Your task to perform on an android device: toggle priority inbox in the gmail app Image 0: 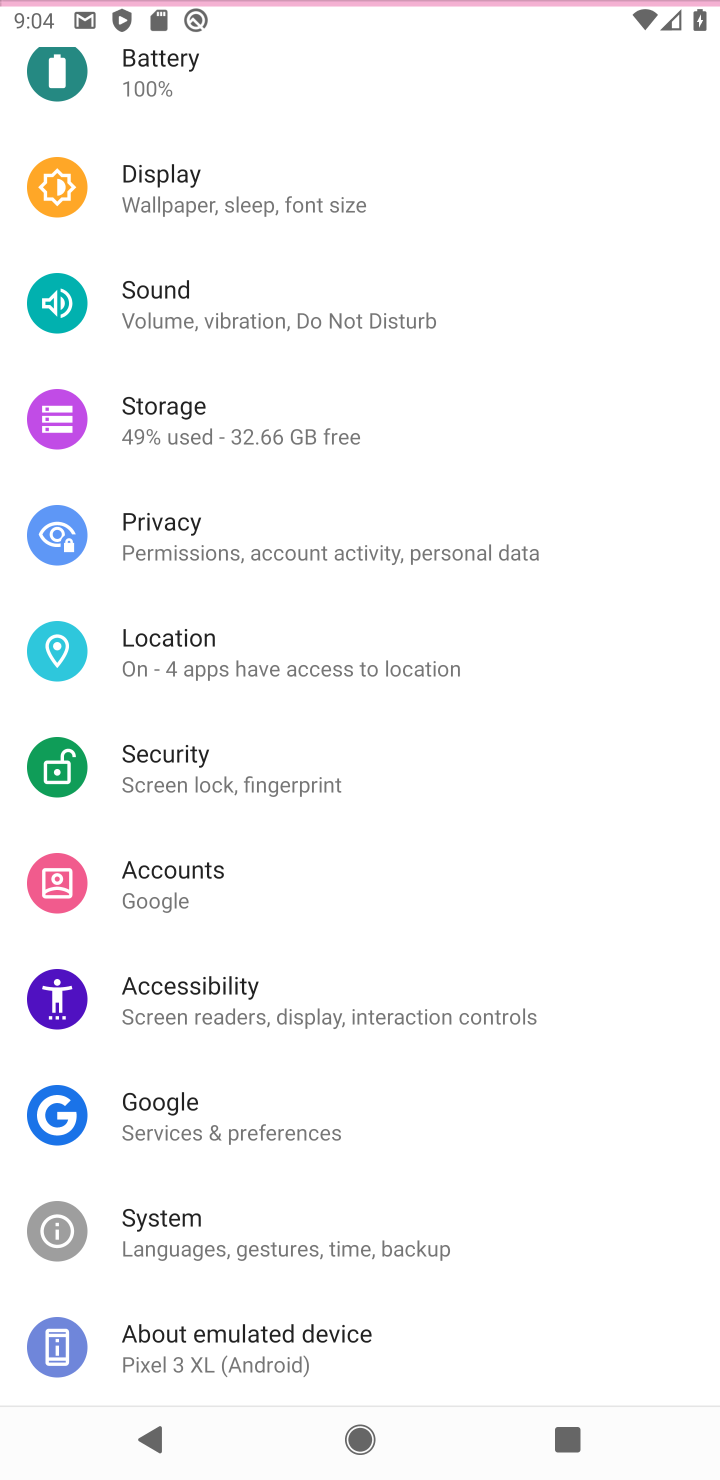
Step 0: press back button
Your task to perform on an android device: toggle priority inbox in the gmail app Image 1: 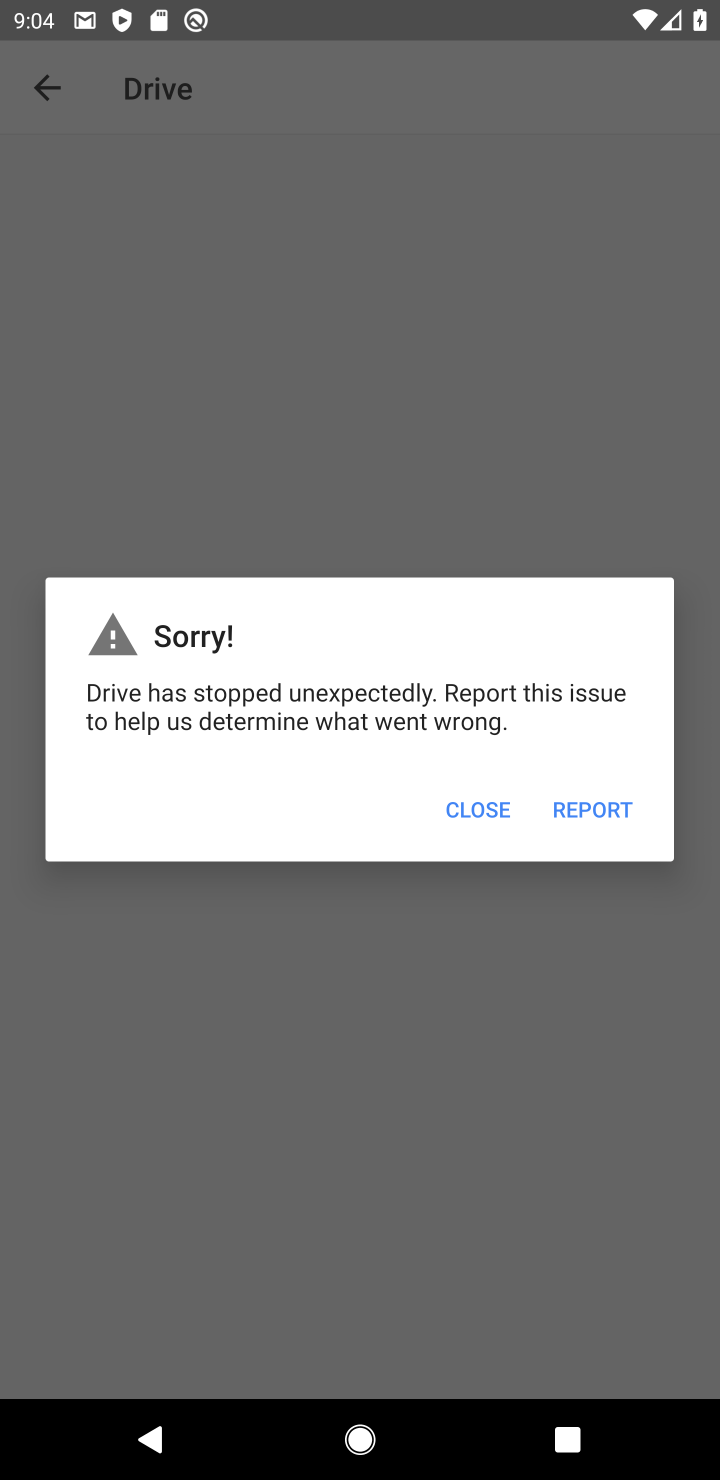
Step 1: press back button
Your task to perform on an android device: toggle priority inbox in the gmail app Image 2: 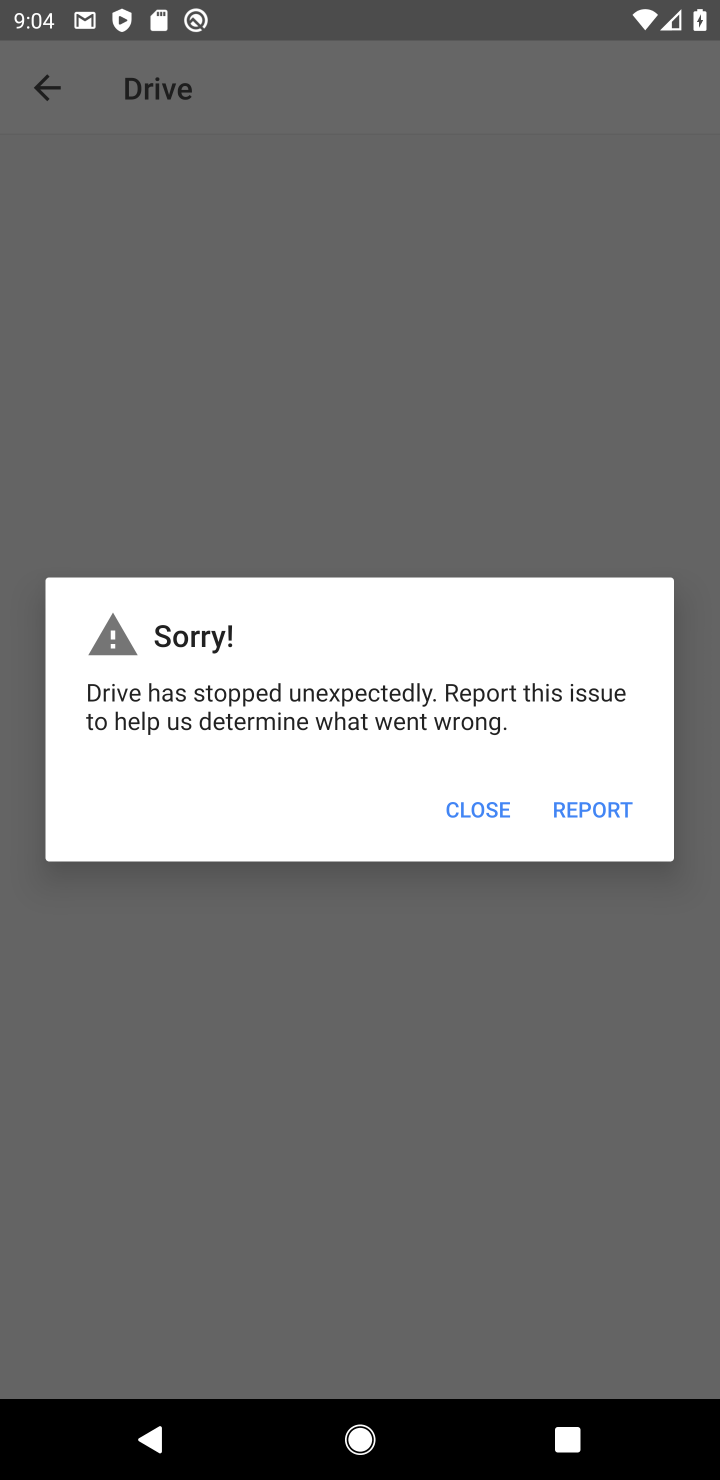
Step 2: press home button
Your task to perform on an android device: toggle priority inbox in the gmail app Image 3: 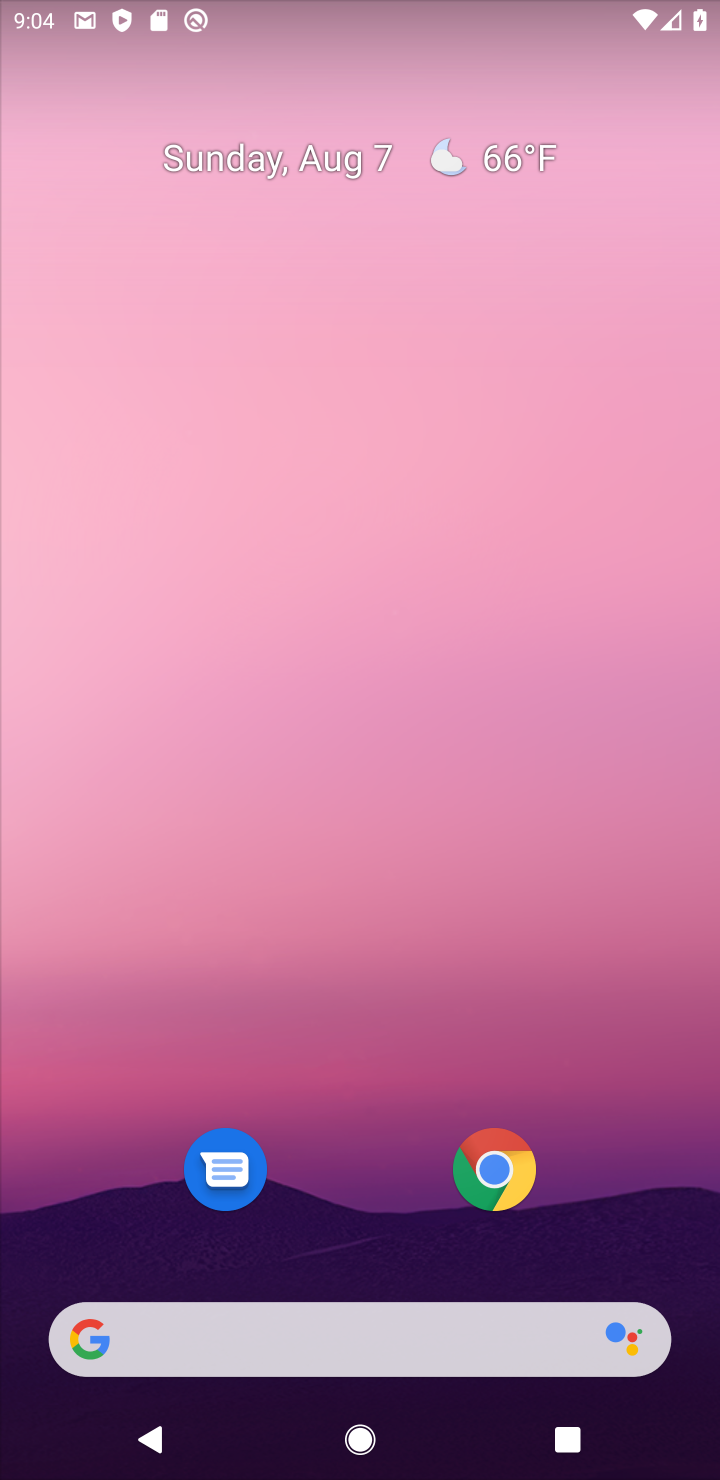
Step 3: drag from (397, 1344) to (267, 97)
Your task to perform on an android device: toggle priority inbox in the gmail app Image 4: 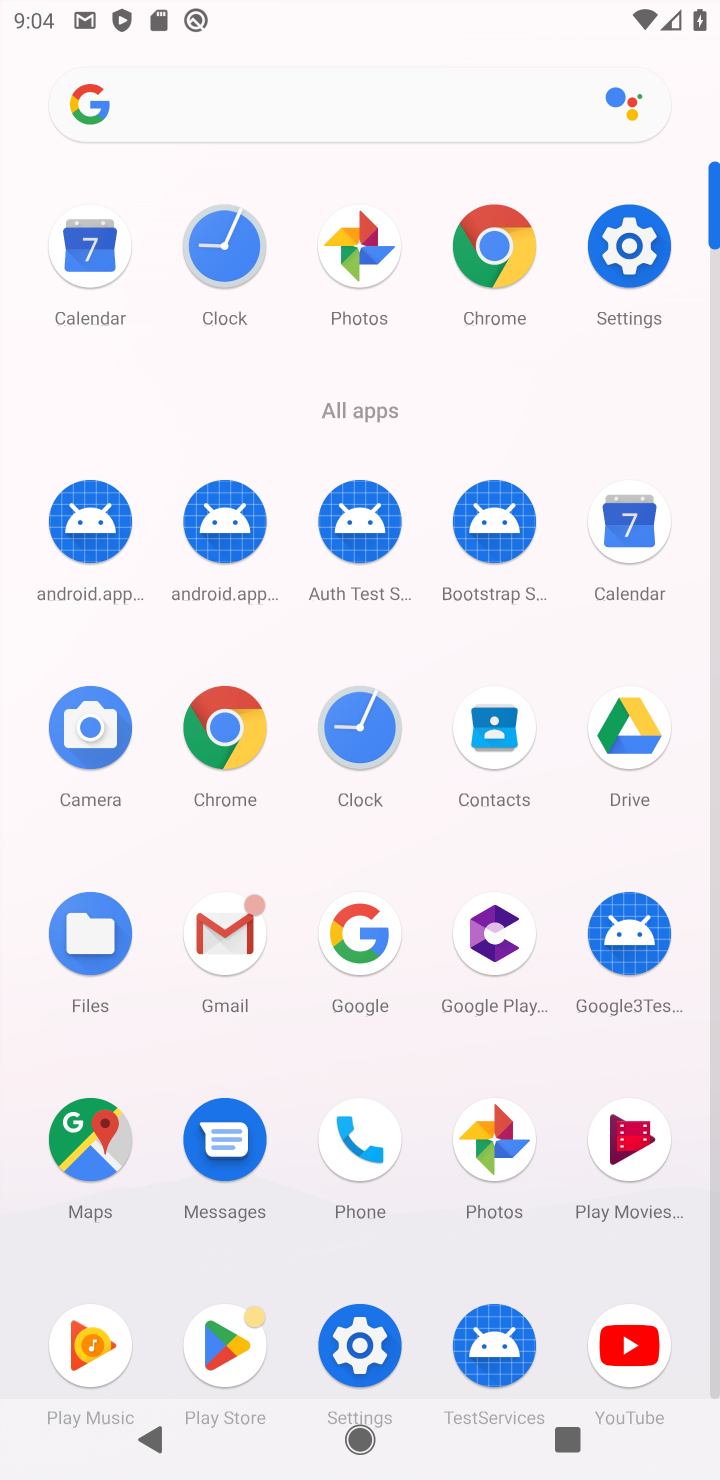
Step 4: click (245, 935)
Your task to perform on an android device: toggle priority inbox in the gmail app Image 5: 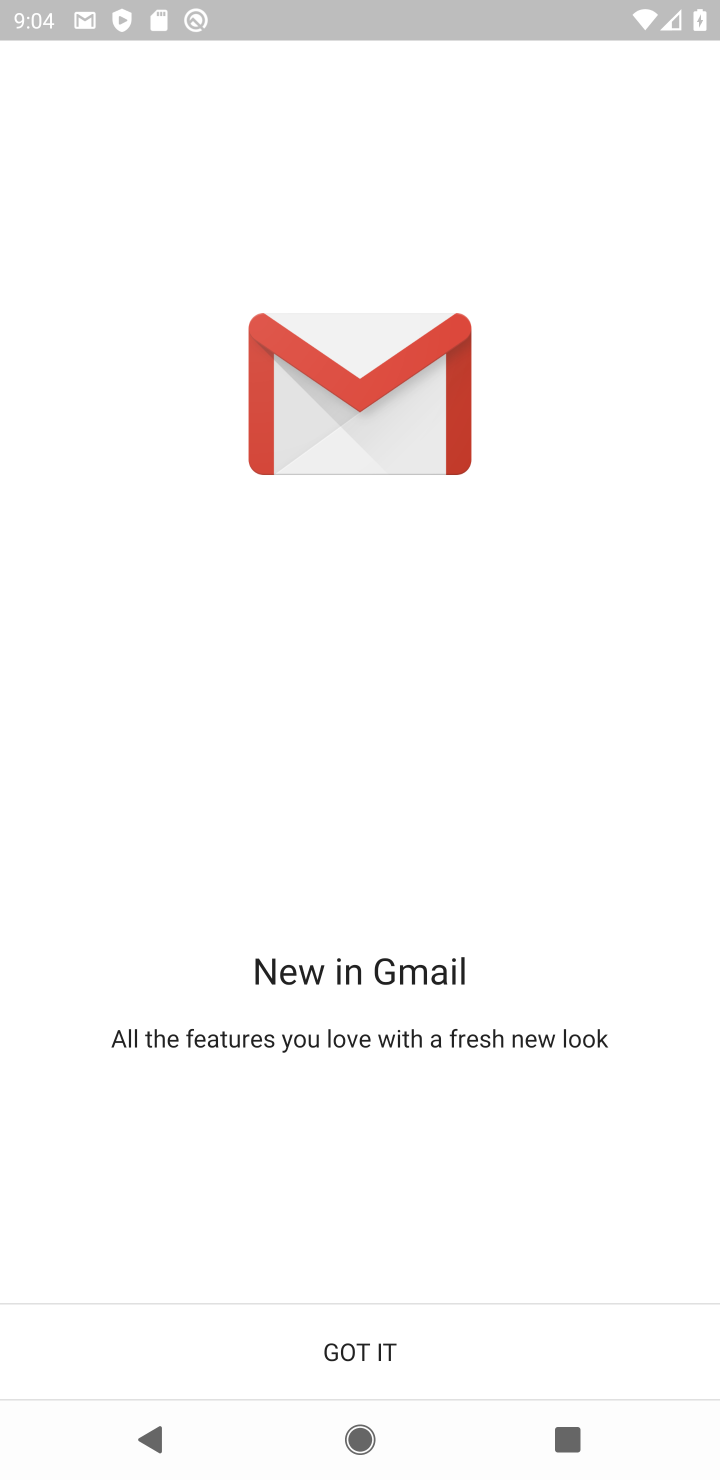
Step 5: click (483, 1321)
Your task to perform on an android device: toggle priority inbox in the gmail app Image 6: 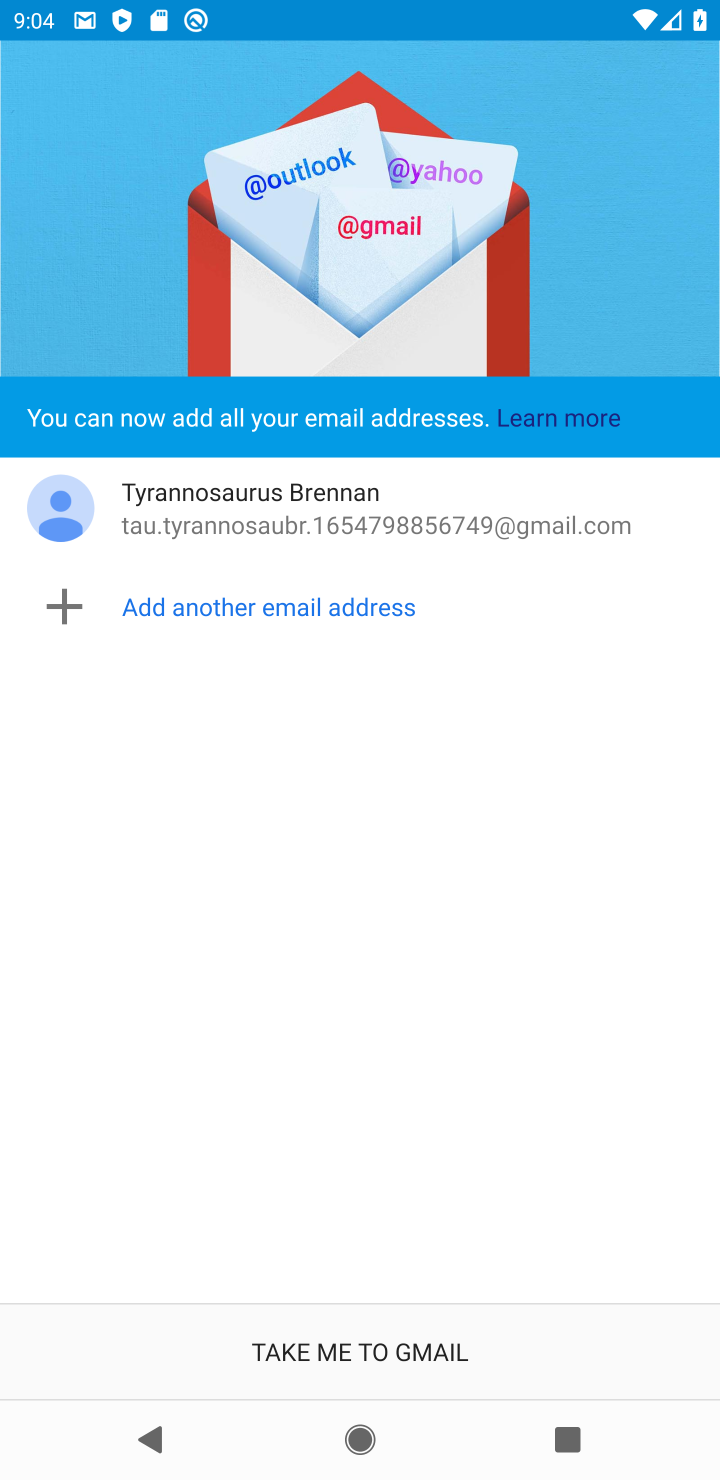
Step 6: click (492, 1343)
Your task to perform on an android device: toggle priority inbox in the gmail app Image 7: 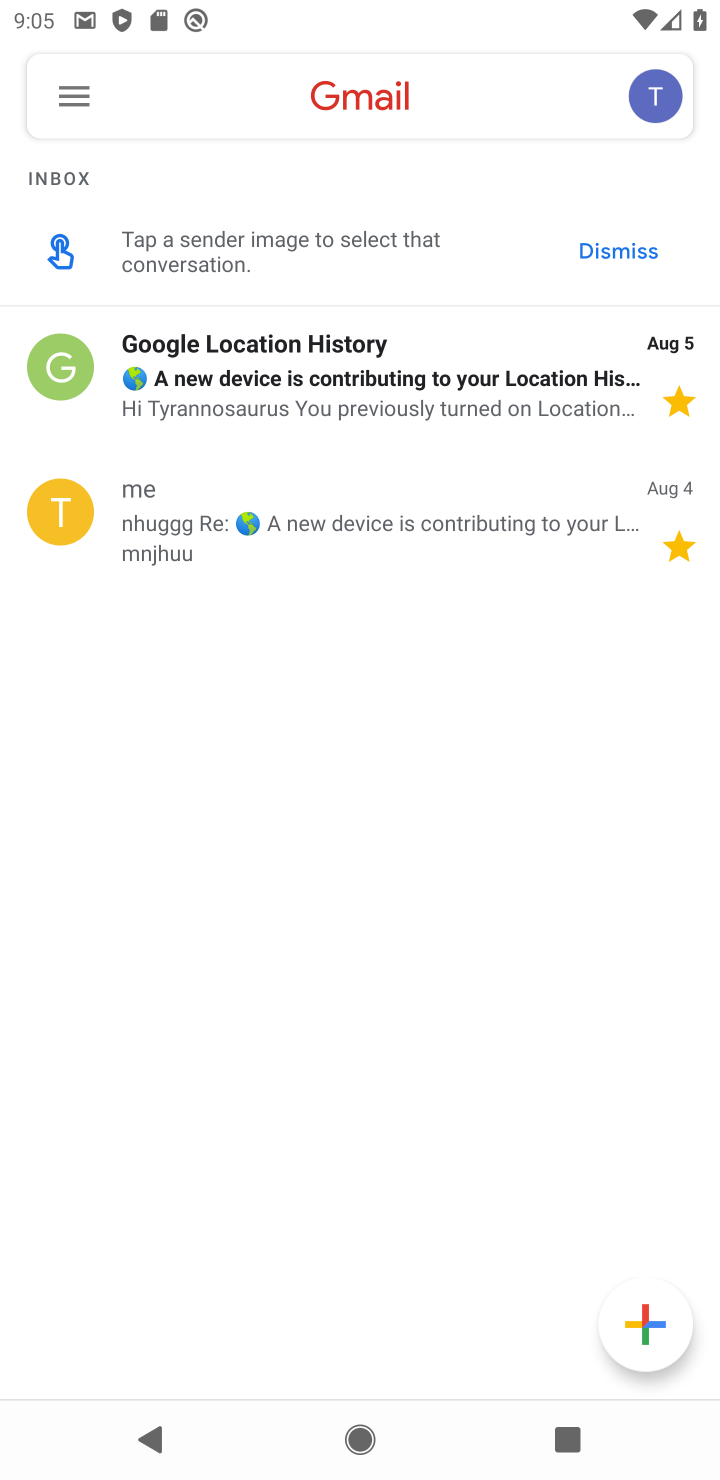
Step 7: drag from (66, 91) to (160, 1061)
Your task to perform on an android device: toggle priority inbox in the gmail app Image 8: 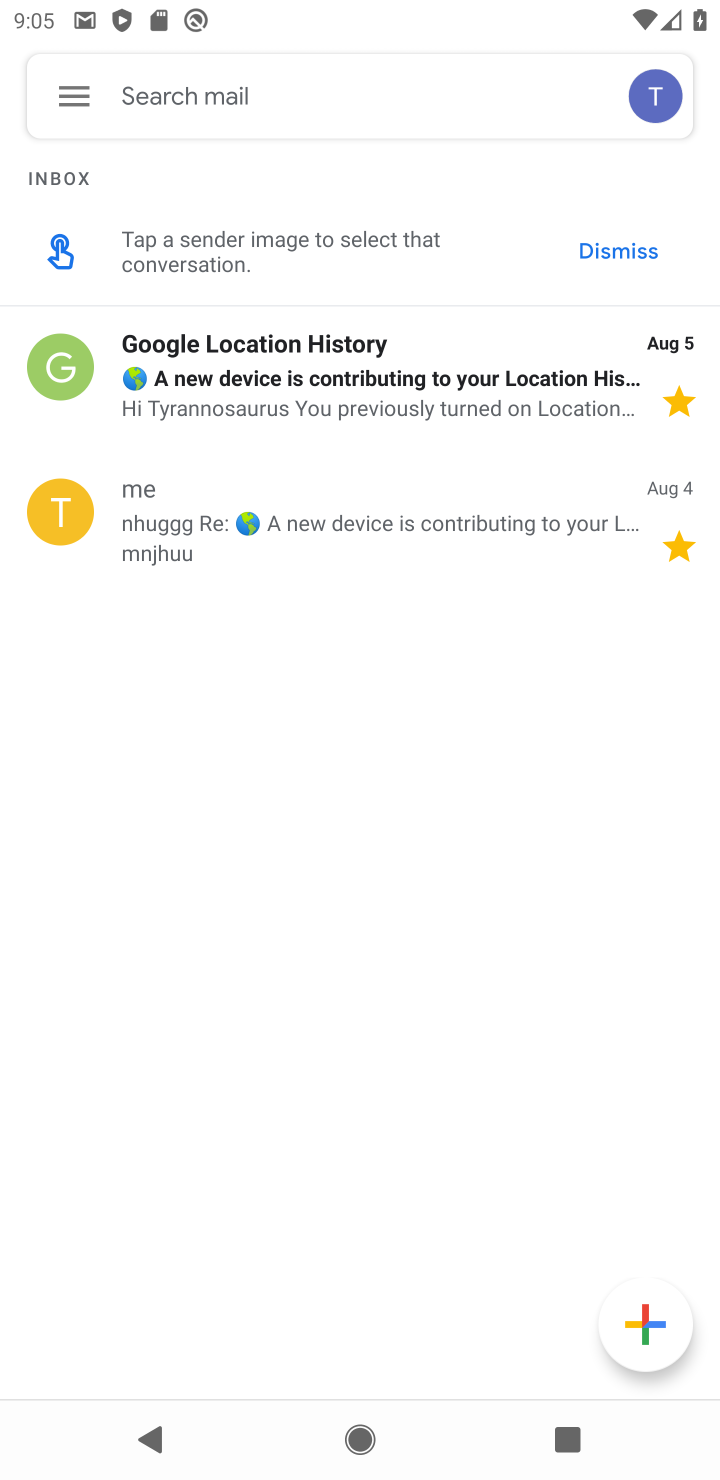
Step 8: click (70, 67)
Your task to perform on an android device: toggle priority inbox in the gmail app Image 9: 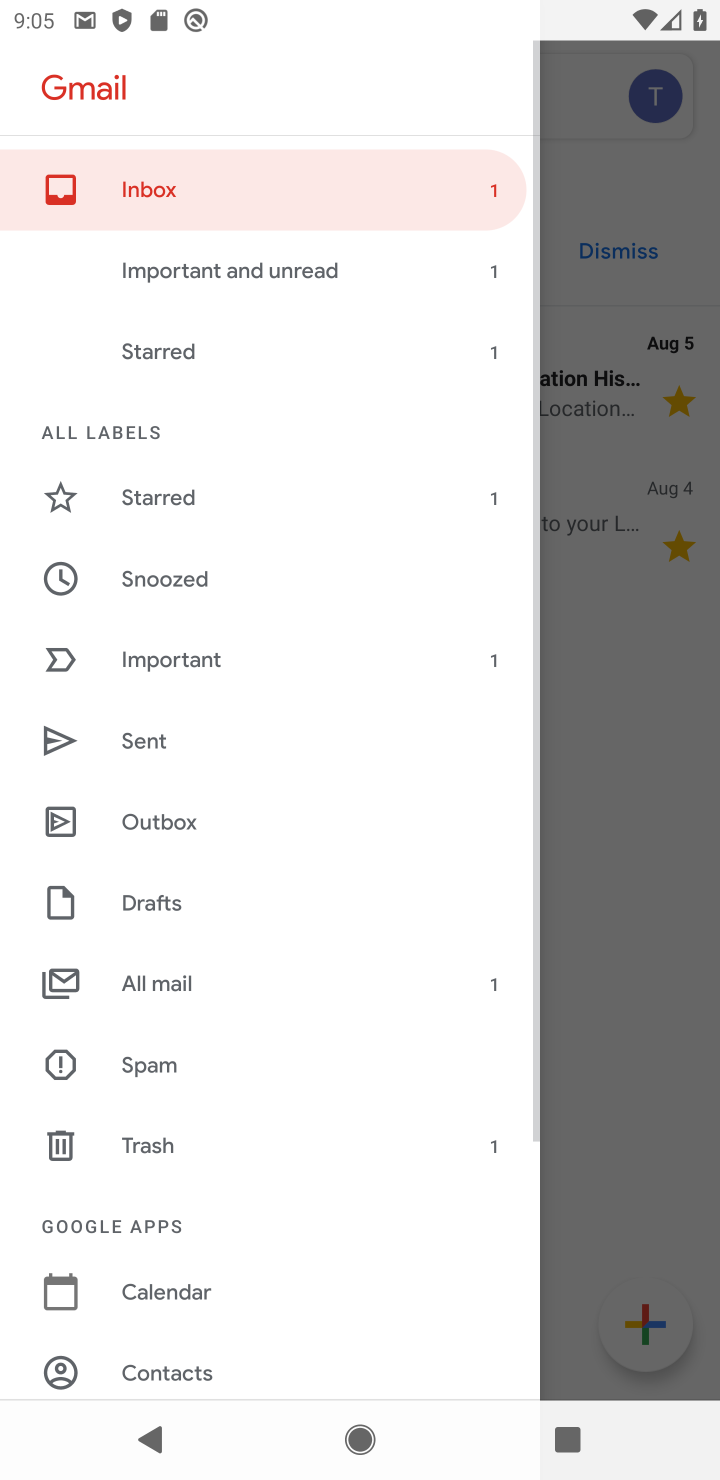
Step 9: drag from (293, 1116) to (303, 69)
Your task to perform on an android device: toggle priority inbox in the gmail app Image 10: 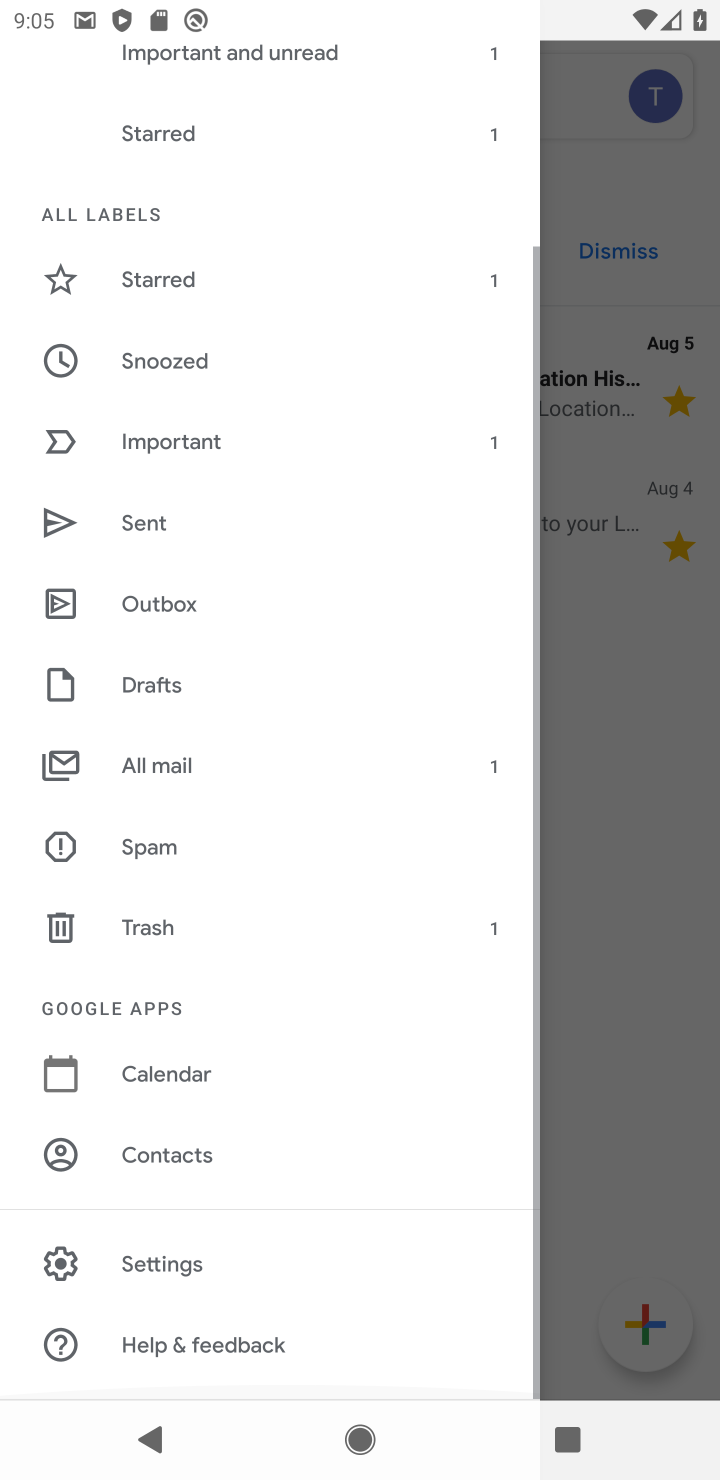
Step 10: click (175, 1271)
Your task to perform on an android device: toggle priority inbox in the gmail app Image 11: 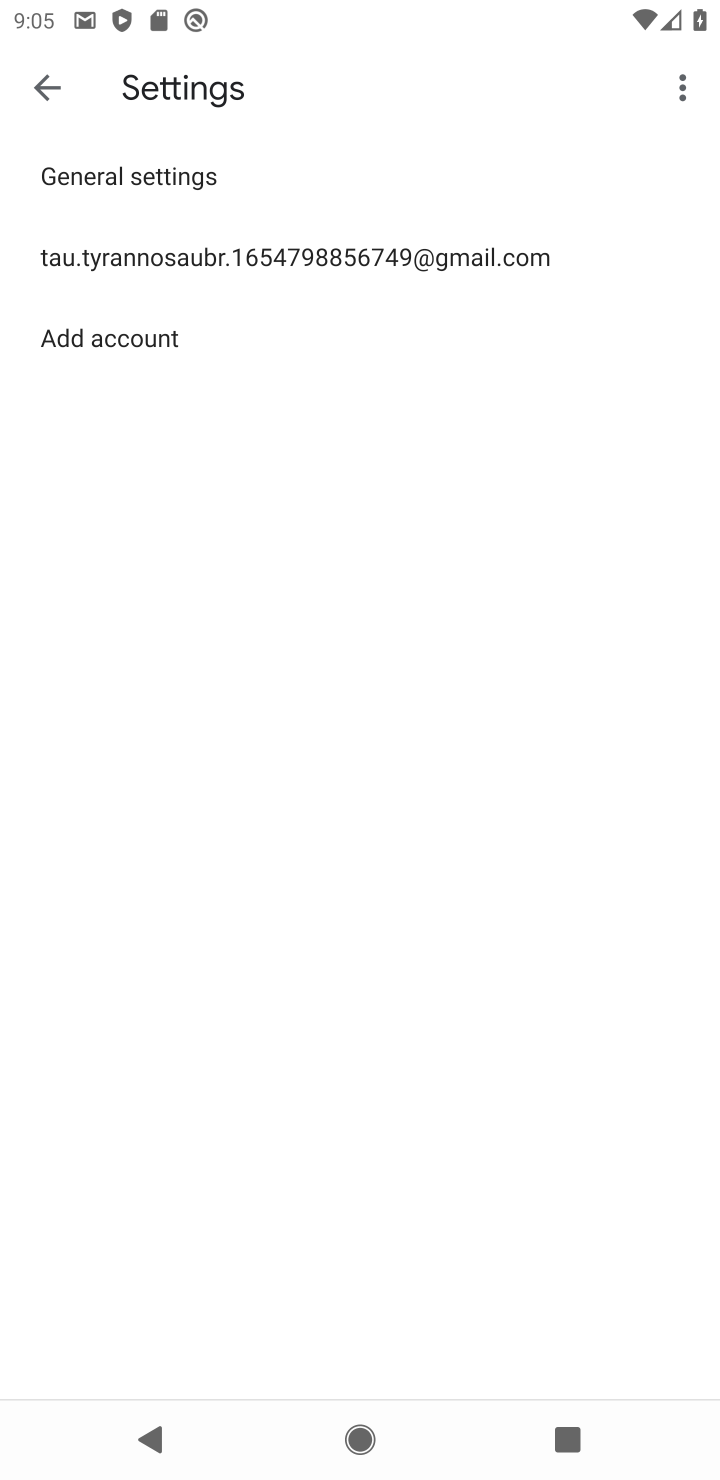
Step 11: click (249, 234)
Your task to perform on an android device: toggle priority inbox in the gmail app Image 12: 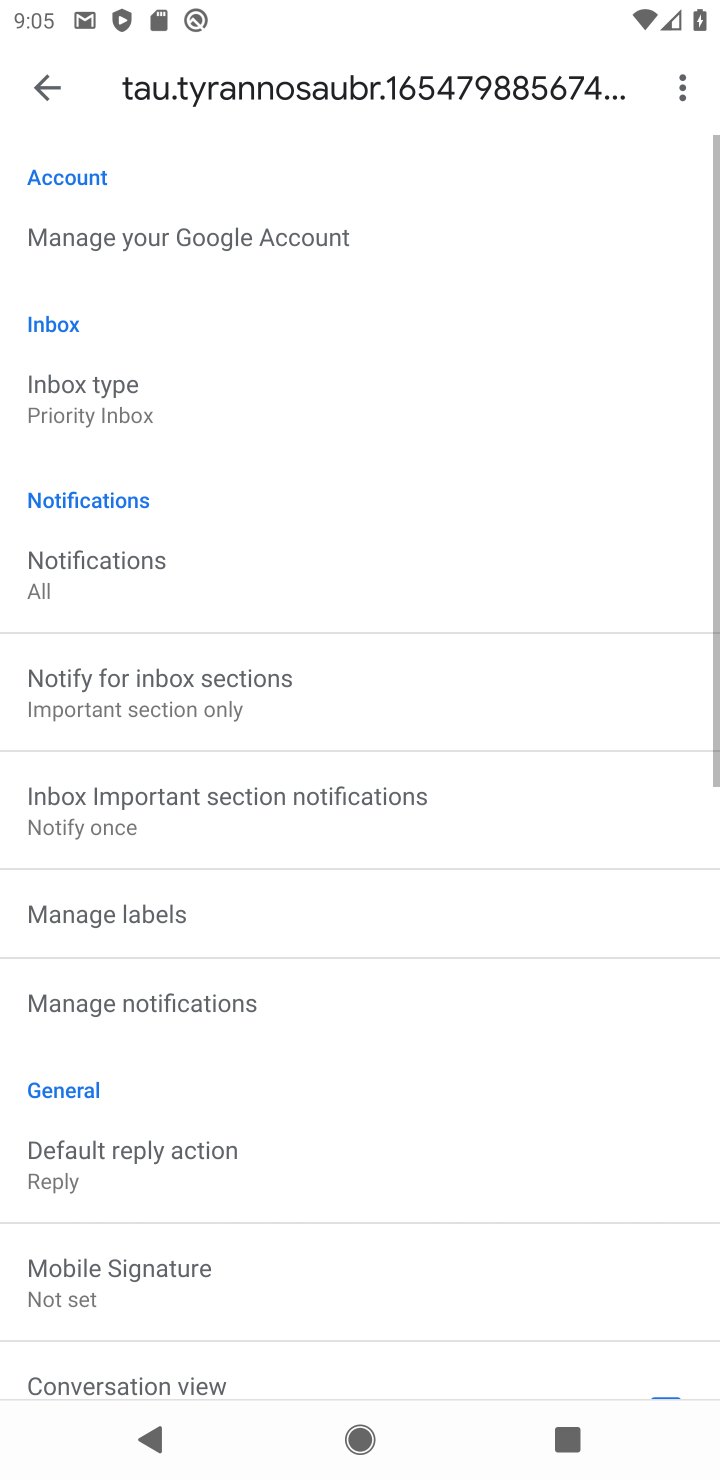
Step 12: click (99, 429)
Your task to perform on an android device: toggle priority inbox in the gmail app Image 13: 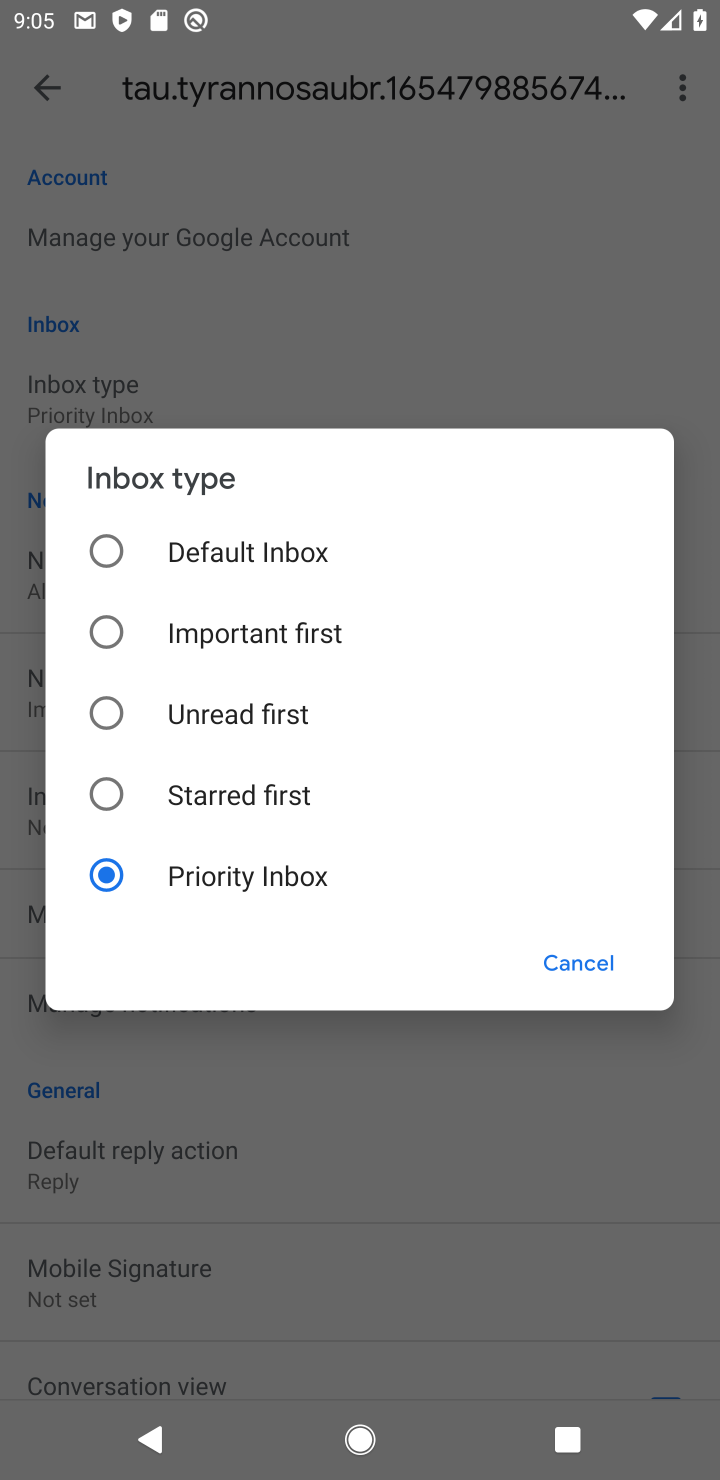
Step 13: click (253, 784)
Your task to perform on an android device: toggle priority inbox in the gmail app Image 14: 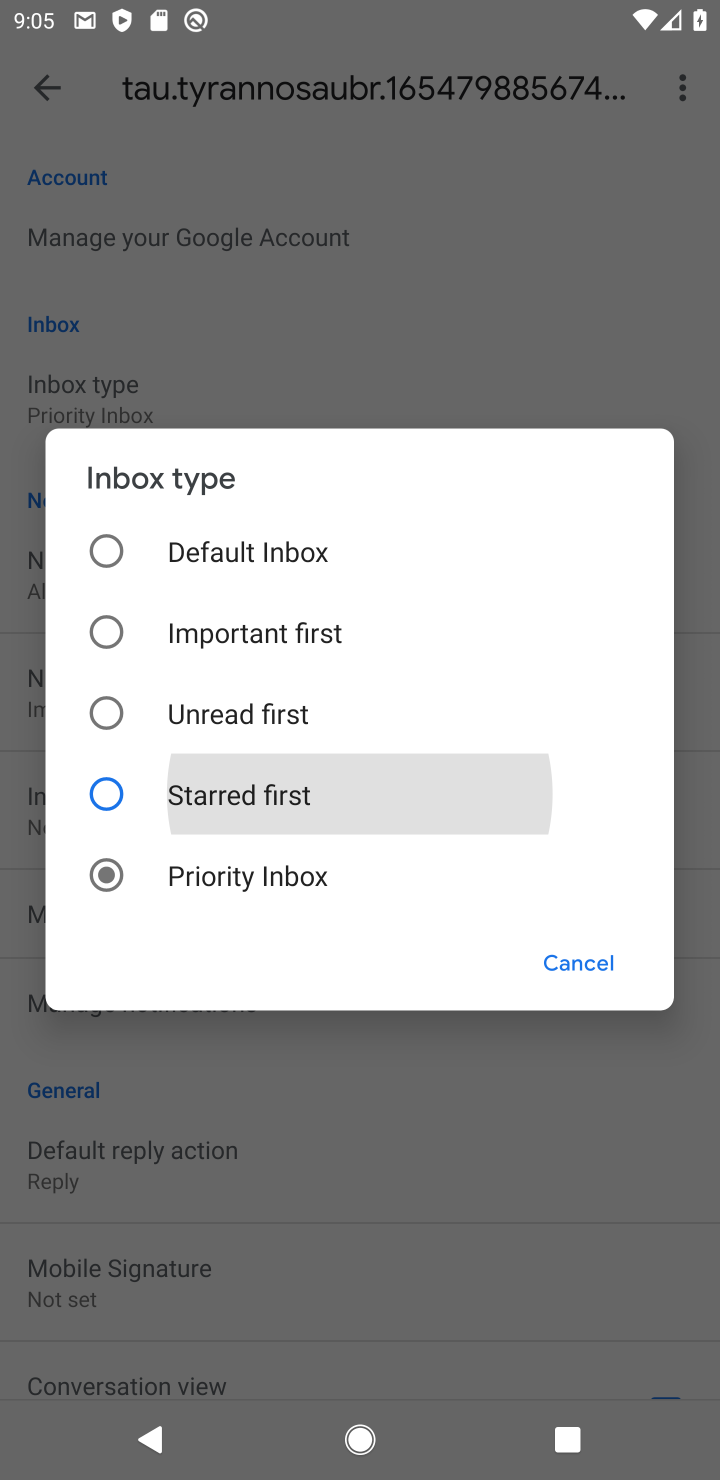
Step 14: task complete